Your task to perform on an android device: Open the web browser Image 0: 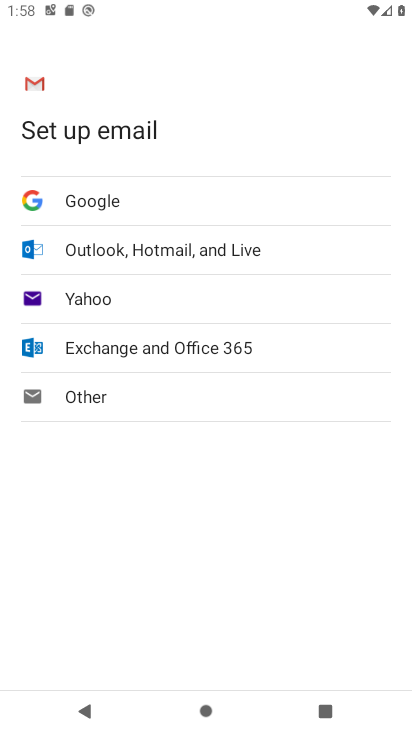
Step 0: press home button
Your task to perform on an android device: Open the web browser Image 1: 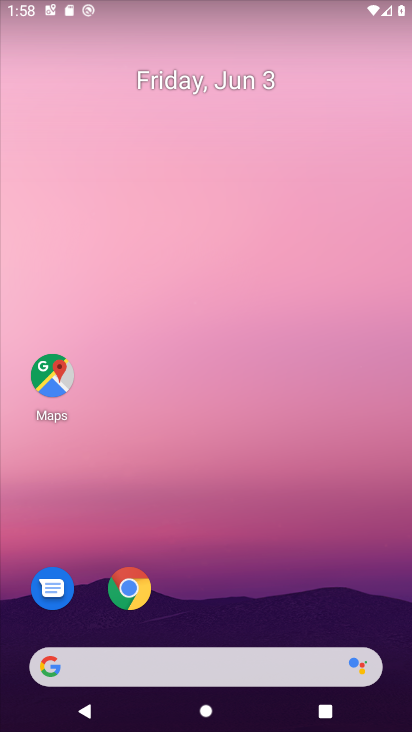
Step 1: drag from (250, 676) to (236, 171)
Your task to perform on an android device: Open the web browser Image 2: 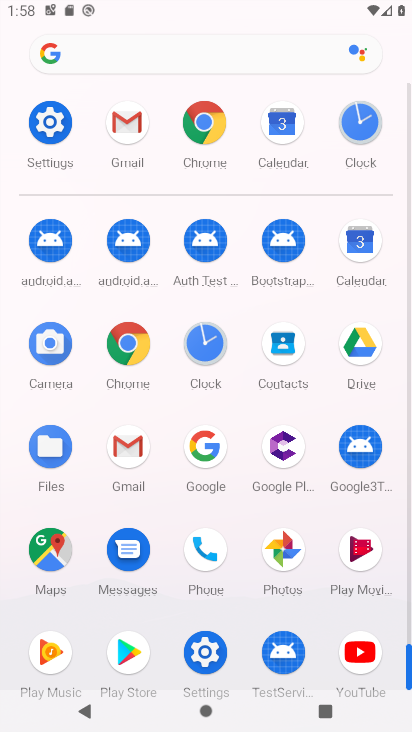
Step 2: click (195, 148)
Your task to perform on an android device: Open the web browser Image 3: 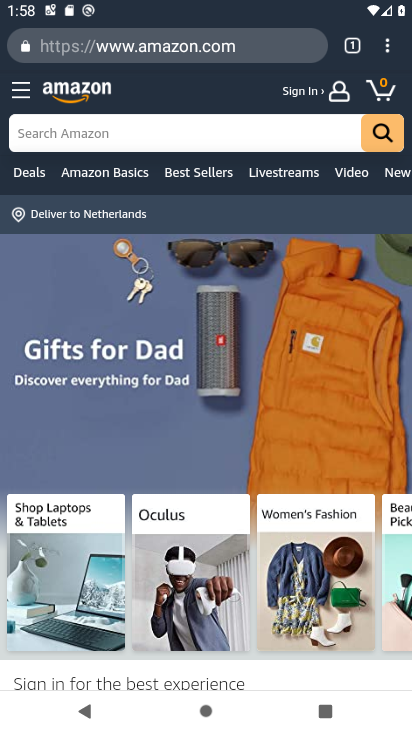
Step 3: task complete